Your task to perform on an android device: stop showing notifications on the lock screen Image 0: 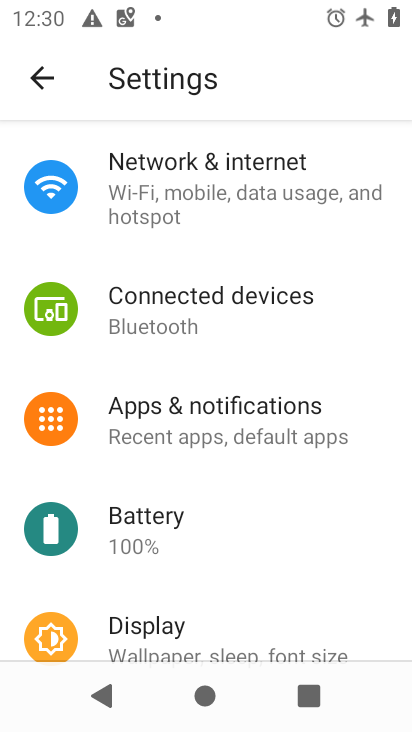
Step 0: click (225, 423)
Your task to perform on an android device: stop showing notifications on the lock screen Image 1: 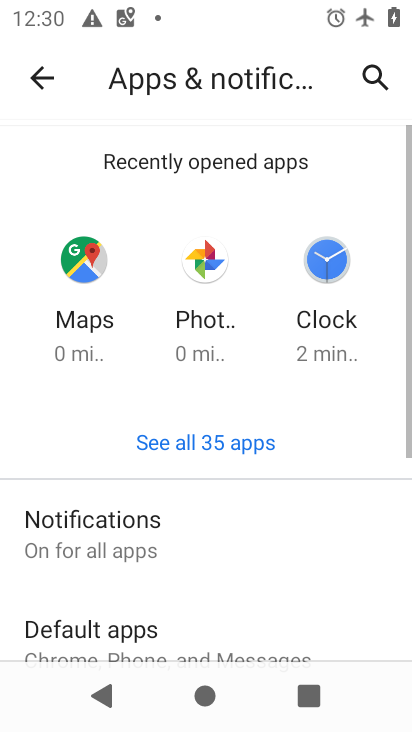
Step 1: click (140, 557)
Your task to perform on an android device: stop showing notifications on the lock screen Image 2: 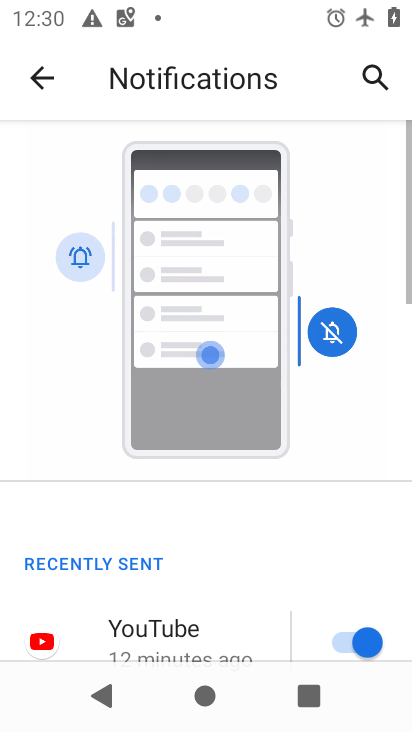
Step 2: drag from (161, 582) to (309, 1)
Your task to perform on an android device: stop showing notifications on the lock screen Image 3: 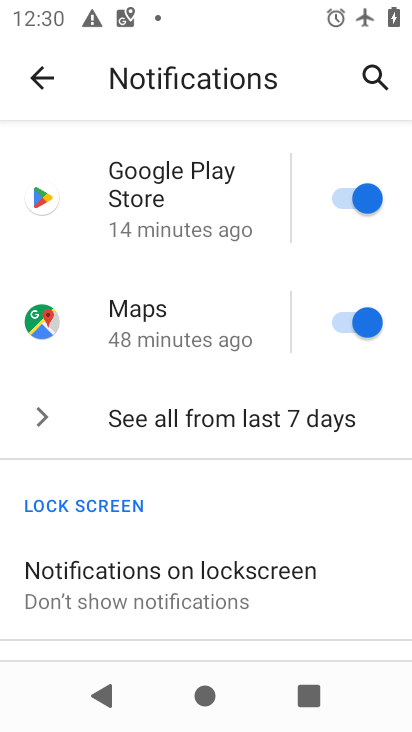
Step 3: click (184, 616)
Your task to perform on an android device: stop showing notifications on the lock screen Image 4: 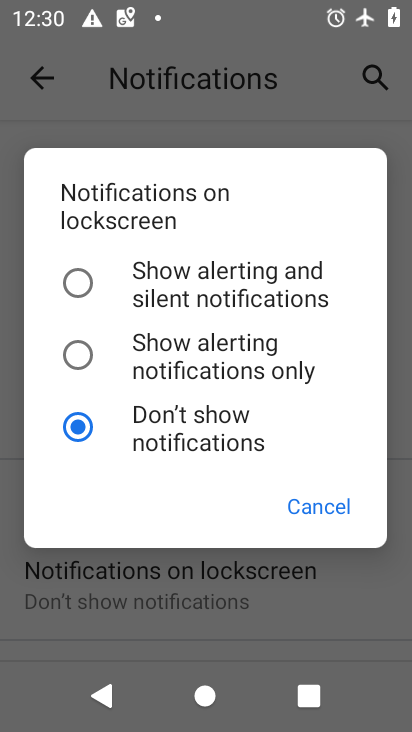
Step 4: task complete